Your task to perform on an android device: Find coffee shops on Maps Image 0: 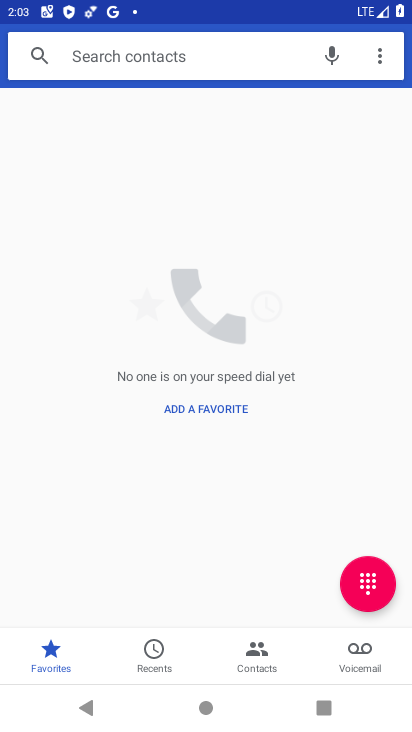
Step 0: press home button
Your task to perform on an android device: Find coffee shops on Maps Image 1: 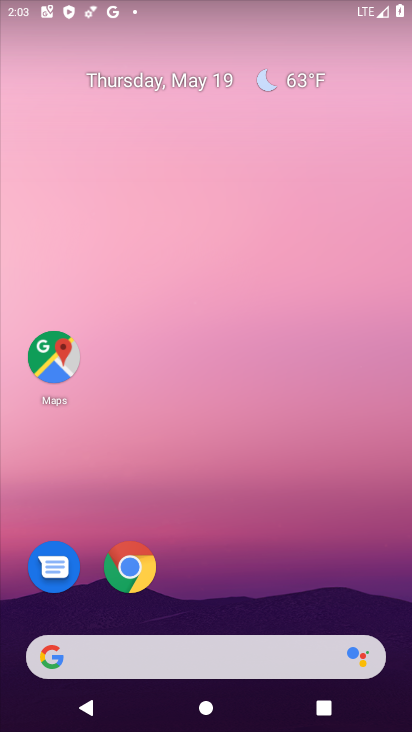
Step 1: click (62, 373)
Your task to perform on an android device: Find coffee shops on Maps Image 2: 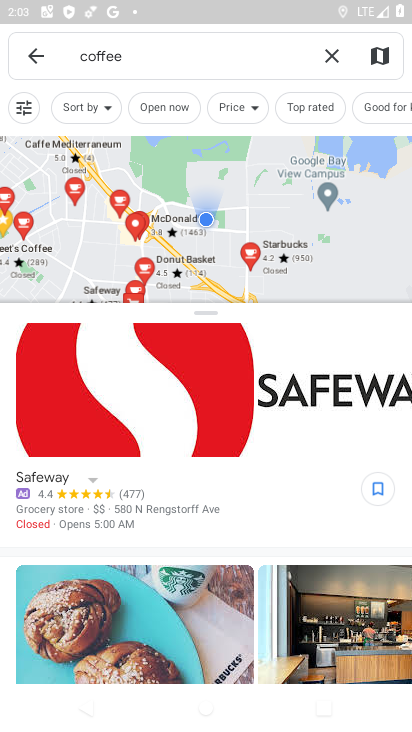
Step 2: task complete